Your task to perform on an android device: check battery use Image 0: 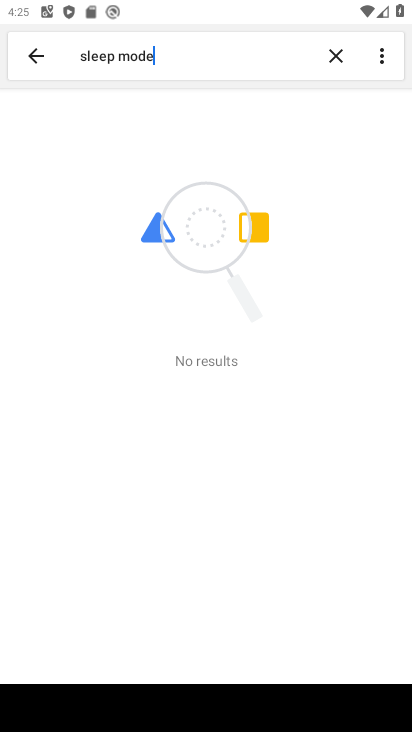
Step 0: press back button
Your task to perform on an android device: check battery use Image 1: 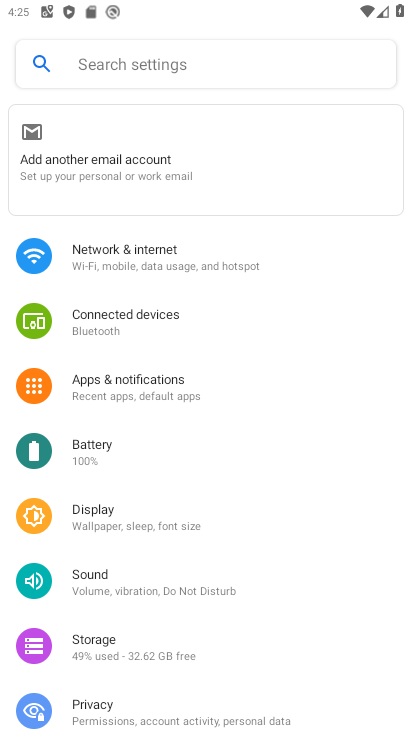
Step 1: click (82, 452)
Your task to perform on an android device: check battery use Image 2: 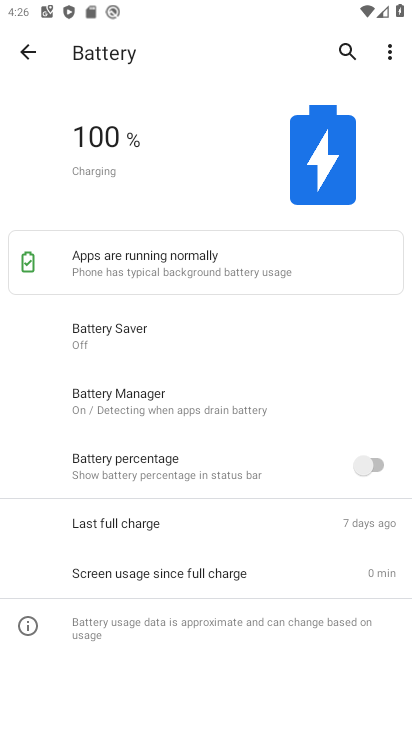
Step 2: click (392, 59)
Your task to perform on an android device: check battery use Image 3: 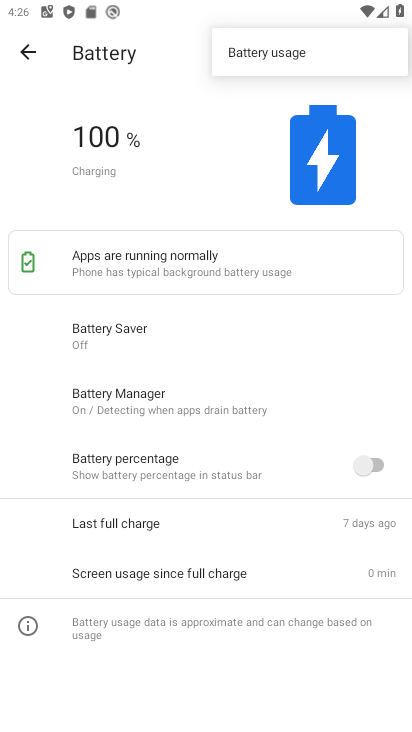
Step 3: click (278, 63)
Your task to perform on an android device: check battery use Image 4: 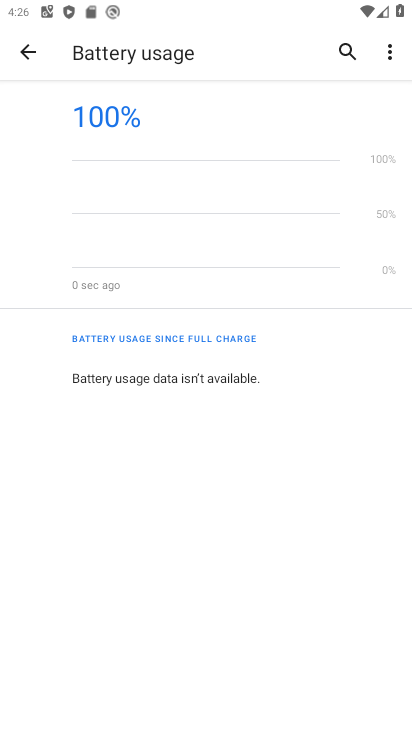
Step 4: task complete